Your task to perform on an android device: move an email to a new category in the gmail app Image 0: 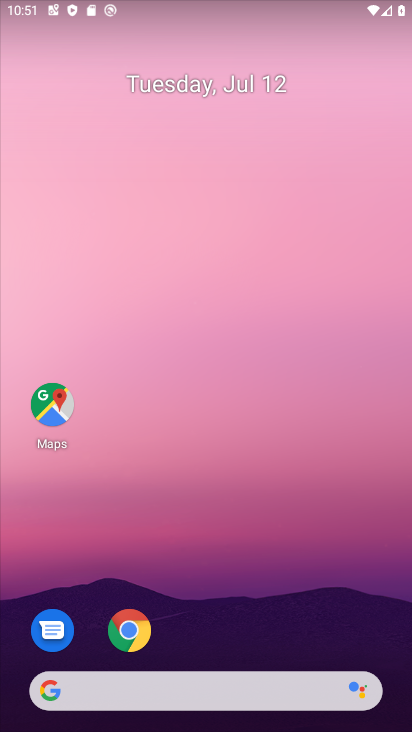
Step 0: drag from (318, 588) to (231, 91)
Your task to perform on an android device: move an email to a new category in the gmail app Image 1: 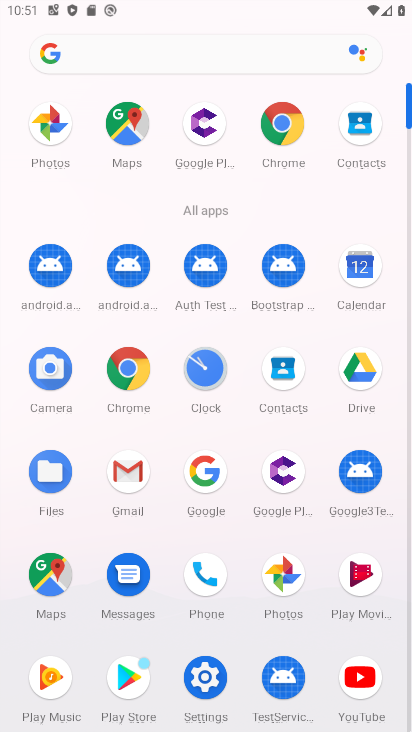
Step 1: click (124, 476)
Your task to perform on an android device: move an email to a new category in the gmail app Image 2: 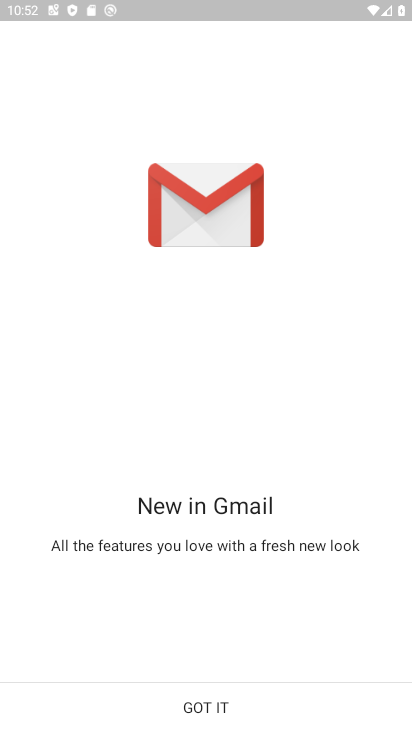
Step 2: click (205, 665)
Your task to perform on an android device: move an email to a new category in the gmail app Image 3: 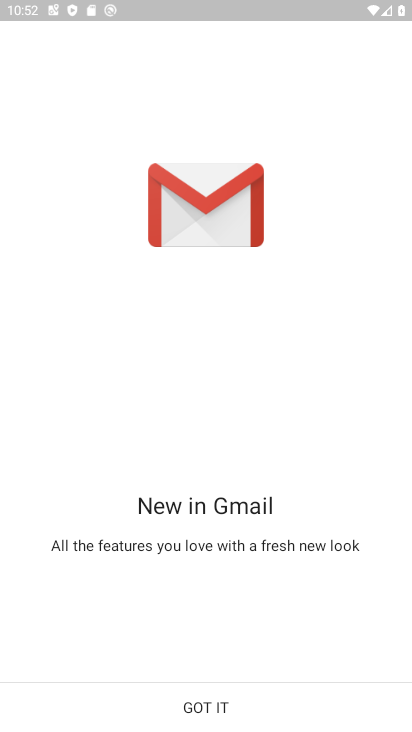
Step 3: click (217, 702)
Your task to perform on an android device: move an email to a new category in the gmail app Image 4: 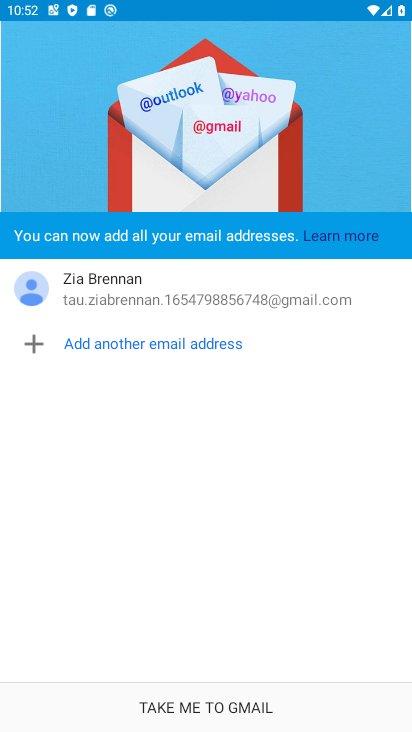
Step 4: click (230, 708)
Your task to perform on an android device: move an email to a new category in the gmail app Image 5: 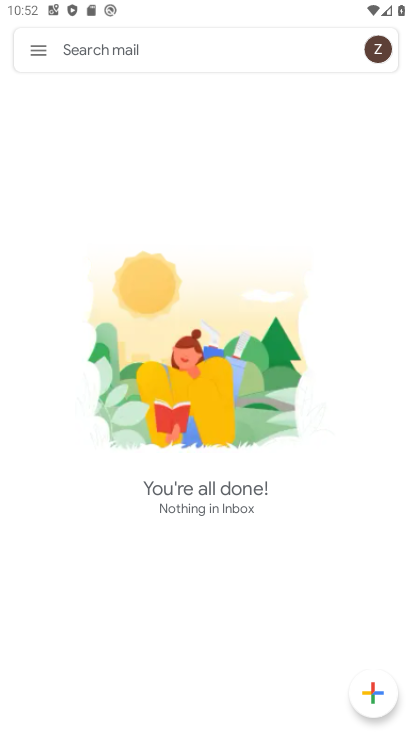
Step 5: click (37, 50)
Your task to perform on an android device: move an email to a new category in the gmail app Image 6: 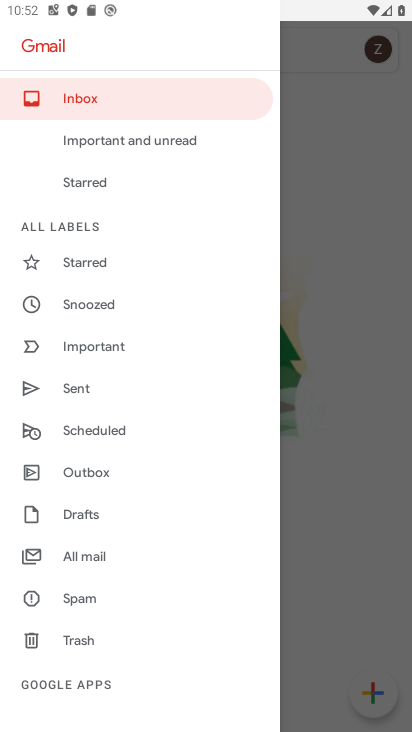
Step 6: click (71, 547)
Your task to perform on an android device: move an email to a new category in the gmail app Image 7: 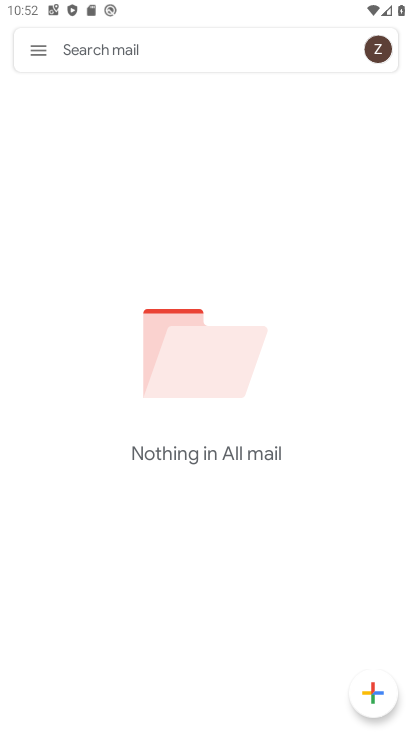
Step 7: task complete